Your task to perform on an android device: toggle javascript in the chrome app Image 0: 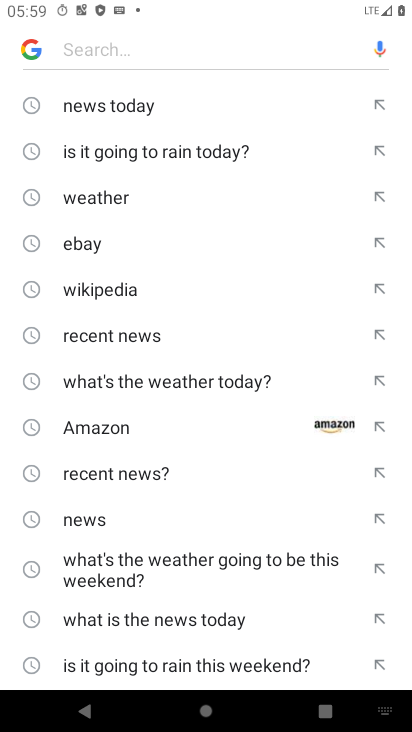
Step 0: press home button
Your task to perform on an android device: toggle javascript in the chrome app Image 1: 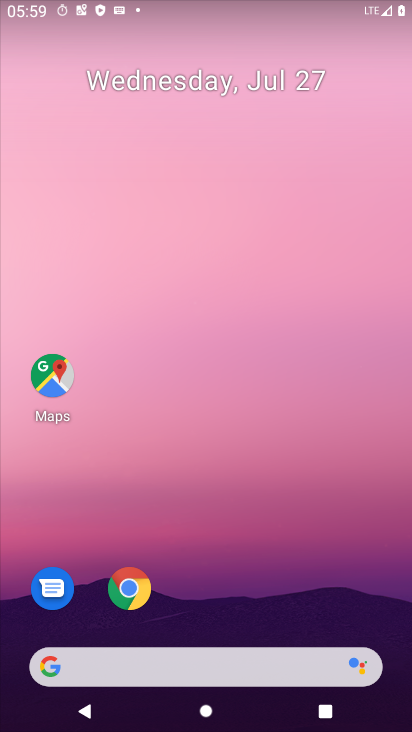
Step 1: drag from (266, 662) to (314, 35)
Your task to perform on an android device: toggle javascript in the chrome app Image 2: 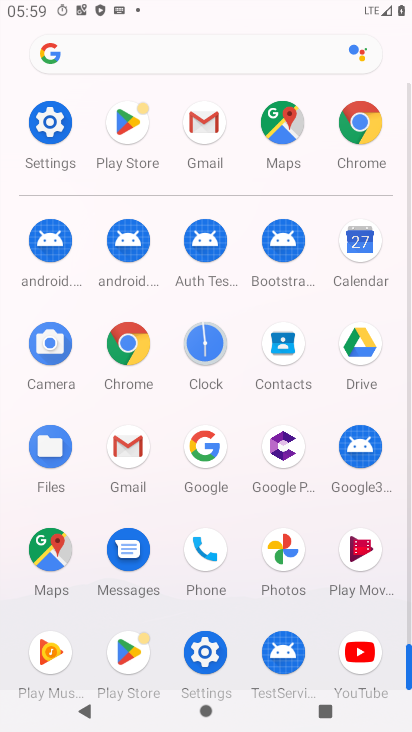
Step 2: click (104, 344)
Your task to perform on an android device: toggle javascript in the chrome app Image 3: 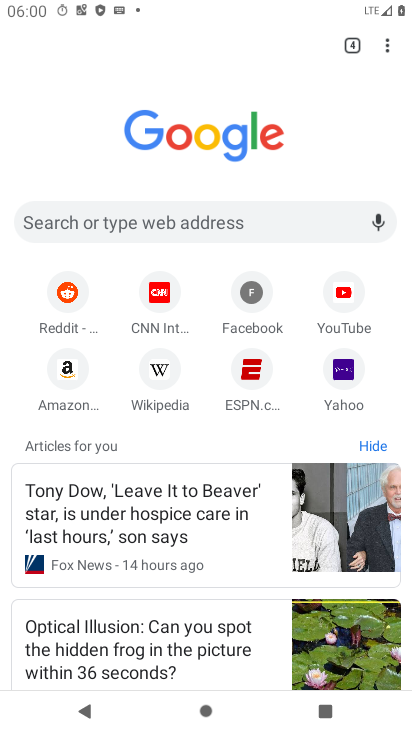
Step 3: click (389, 36)
Your task to perform on an android device: toggle javascript in the chrome app Image 4: 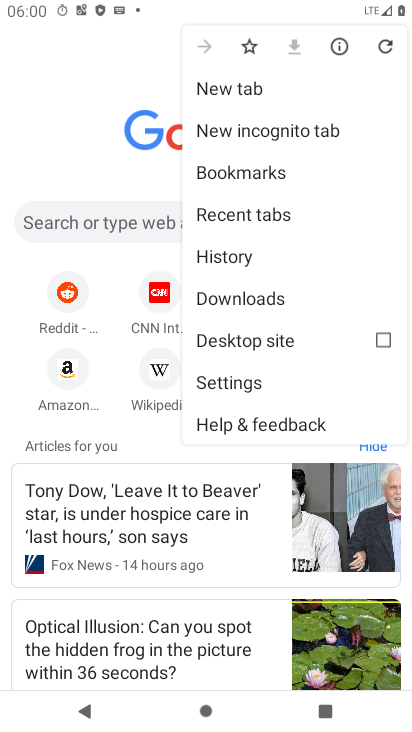
Step 4: click (236, 390)
Your task to perform on an android device: toggle javascript in the chrome app Image 5: 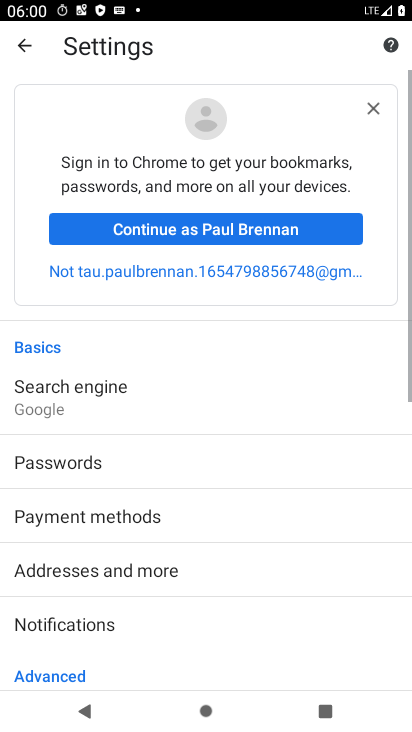
Step 5: drag from (145, 564) to (146, 141)
Your task to perform on an android device: toggle javascript in the chrome app Image 6: 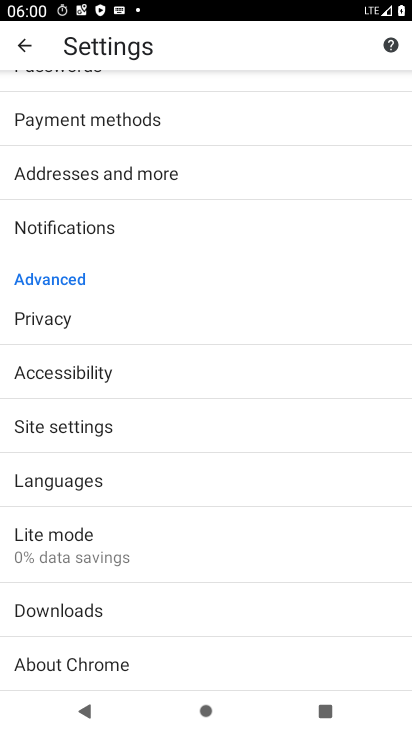
Step 6: click (44, 440)
Your task to perform on an android device: toggle javascript in the chrome app Image 7: 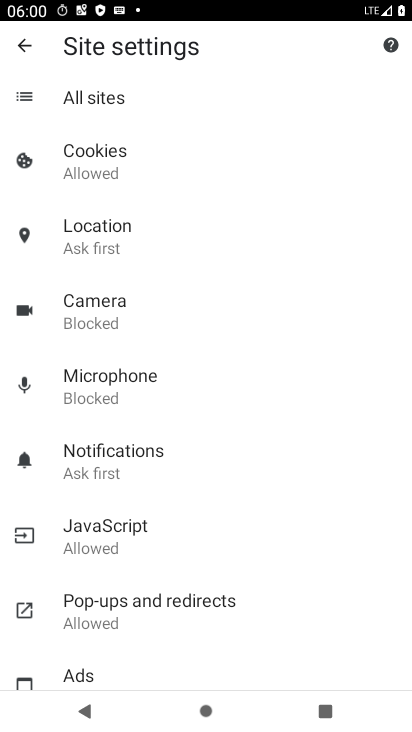
Step 7: click (150, 527)
Your task to perform on an android device: toggle javascript in the chrome app Image 8: 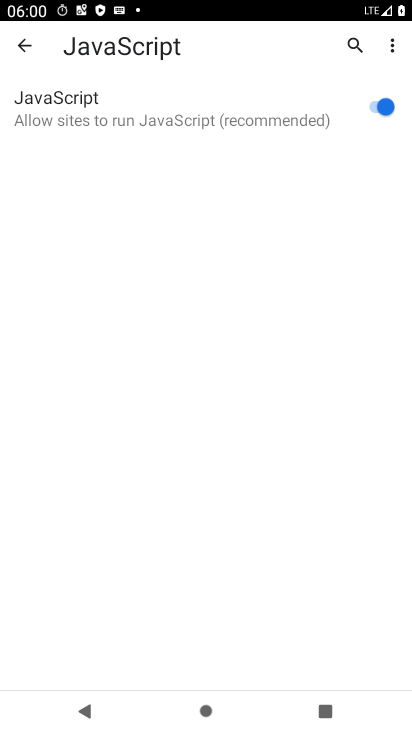
Step 8: click (370, 105)
Your task to perform on an android device: toggle javascript in the chrome app Image 9: 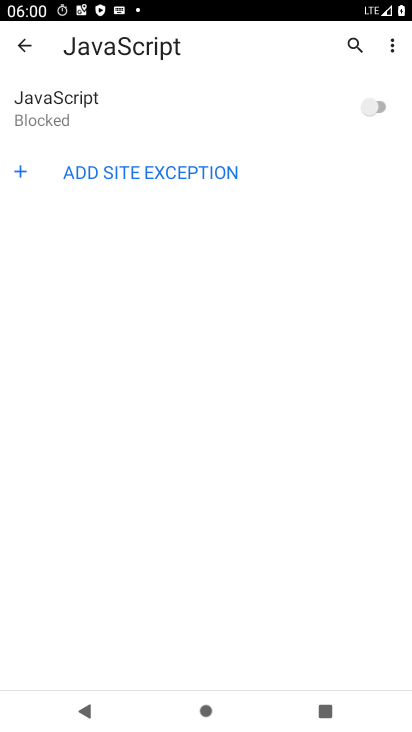
Step 9: task complete